Your task to perform on an android device: change keyboard looks Image 0: 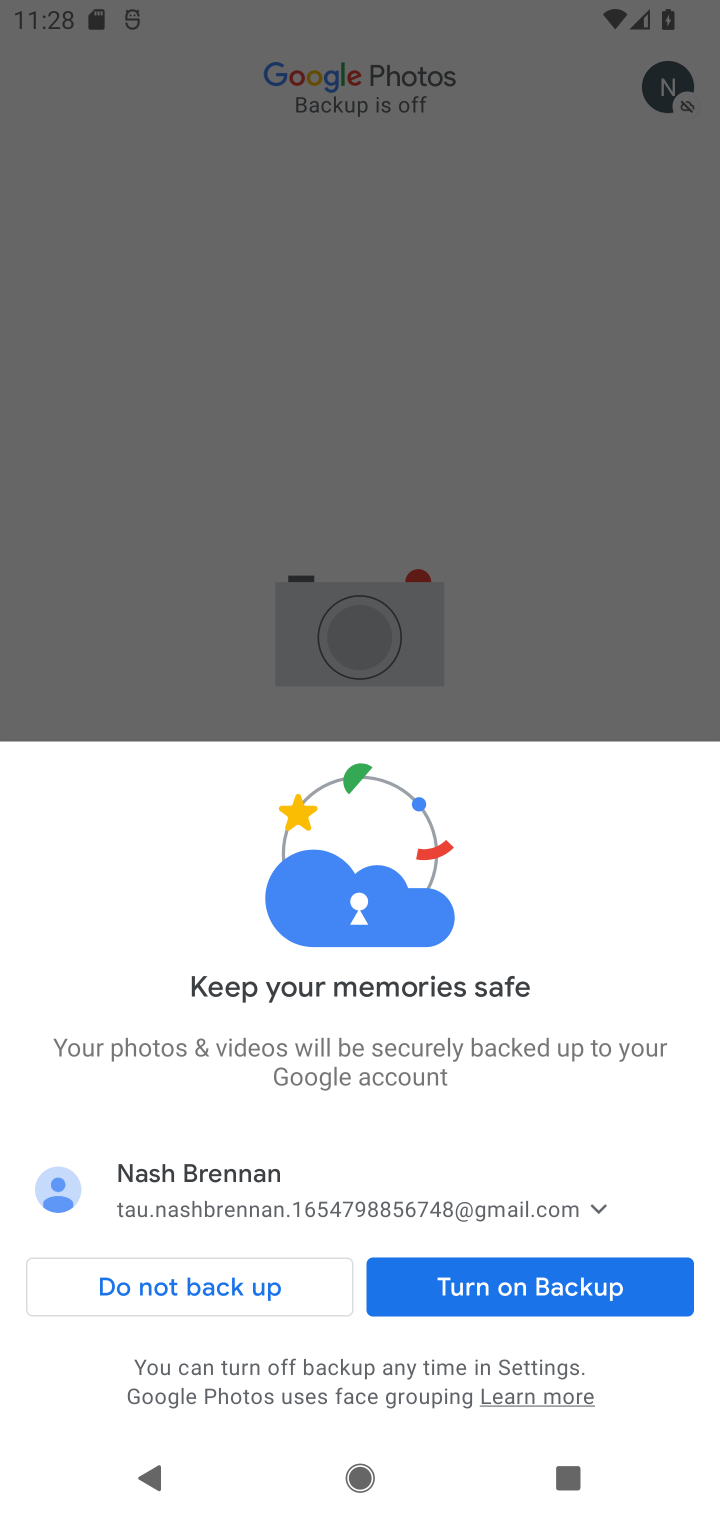
Step 0: press home button
Your task to perform on an android device: change keyboard looks Image 1: 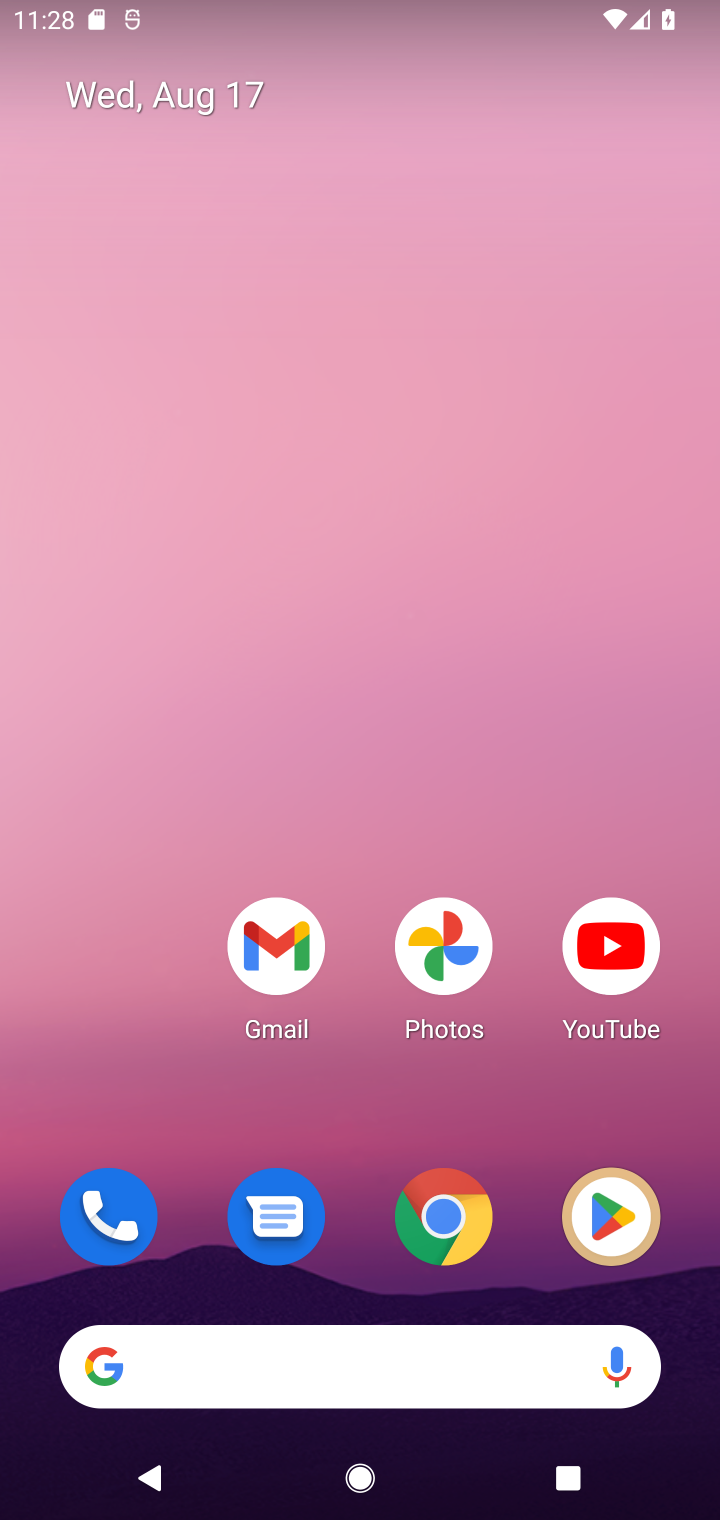
Step 1: drag from (380, 1309) to (245, 410)
Your task to perform on an android device: change keyboard looks Image 2: 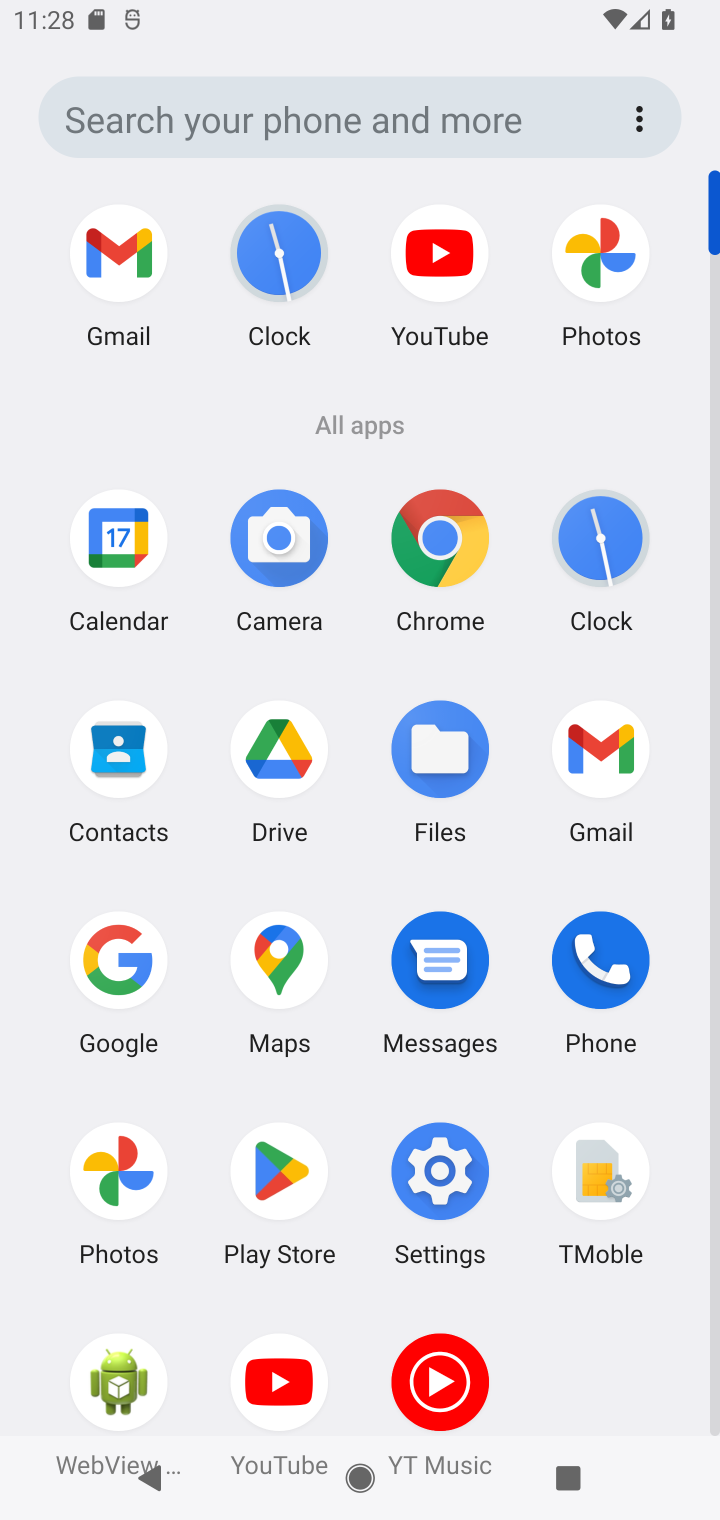
Step 2: click (437, 1192)
Your task to perform on an android device: change keyboard looks Image 3: 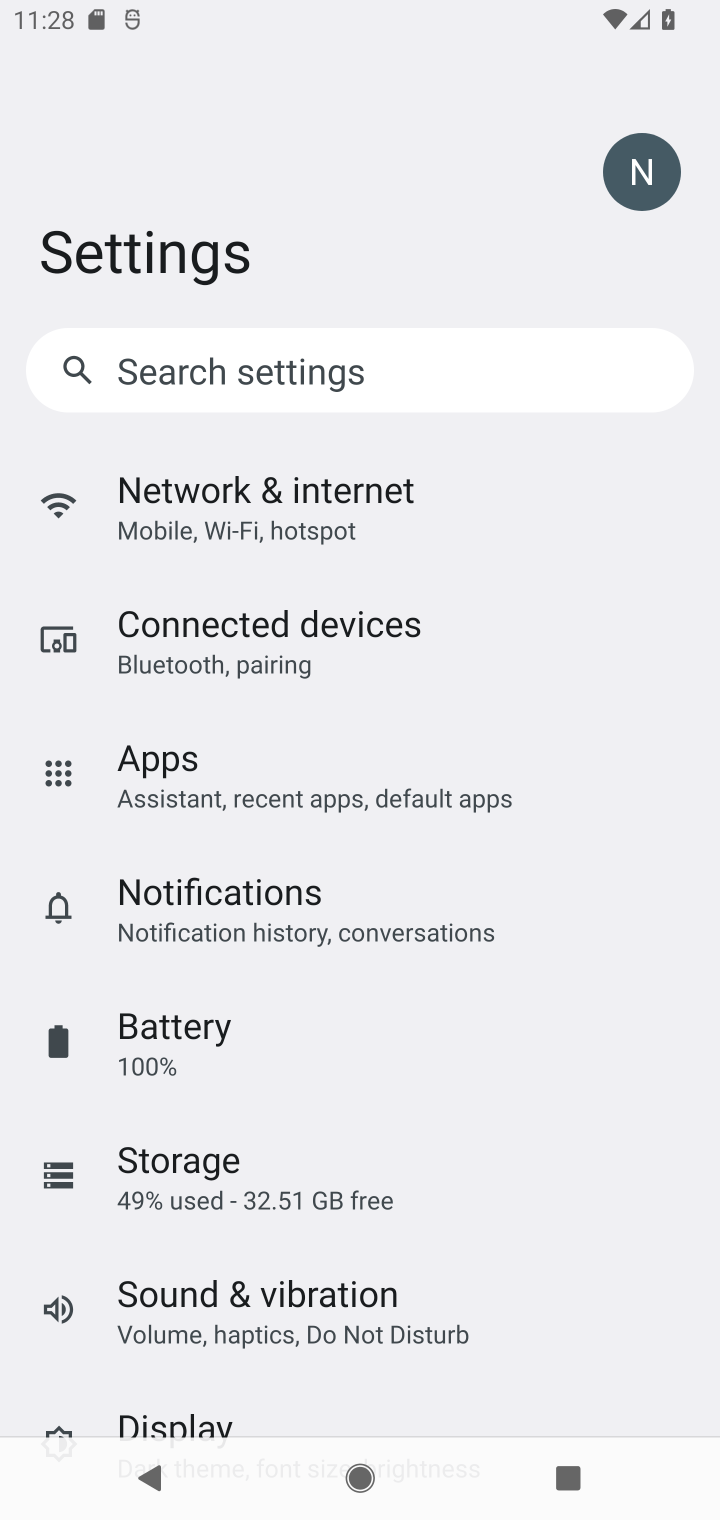
Step 3: drag from (290, 1184) to (376, 701)
Your task to perform on an android device: change keyboard looks Image 4: 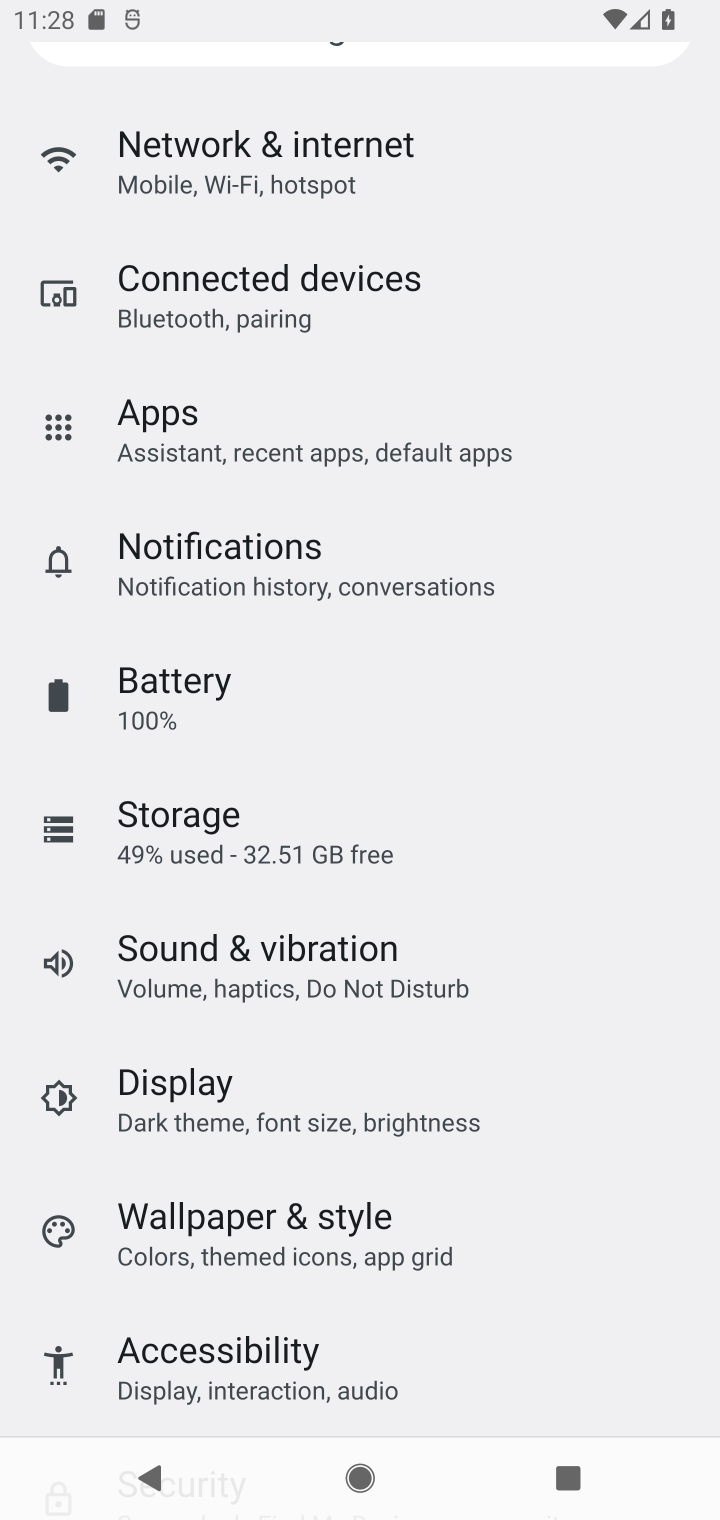
Step 4: click (267, 1126)
Your task to perform on an android device: change keyboard looks Image 5: 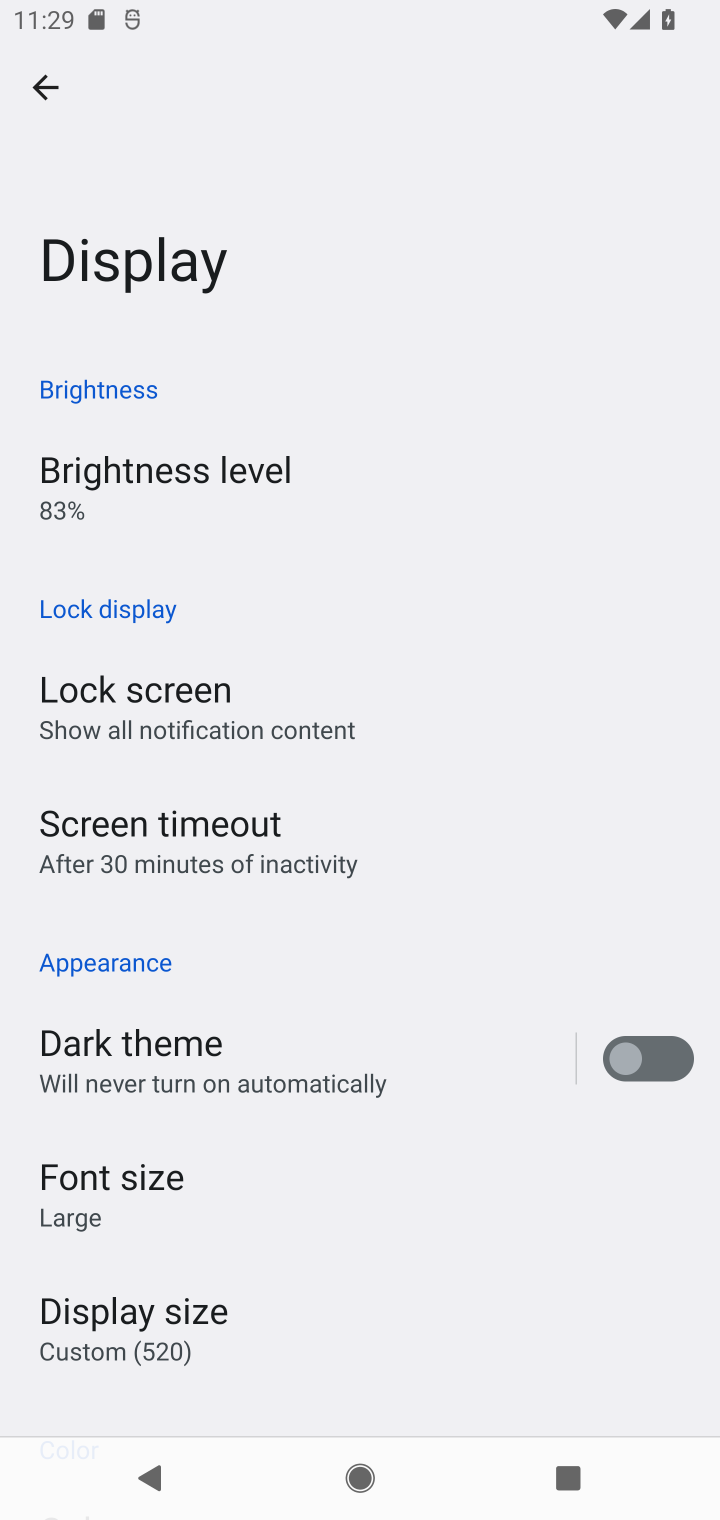
Step 5: click (35, 85)
Your task to perform on an android device: change keyboard looks Image 6: 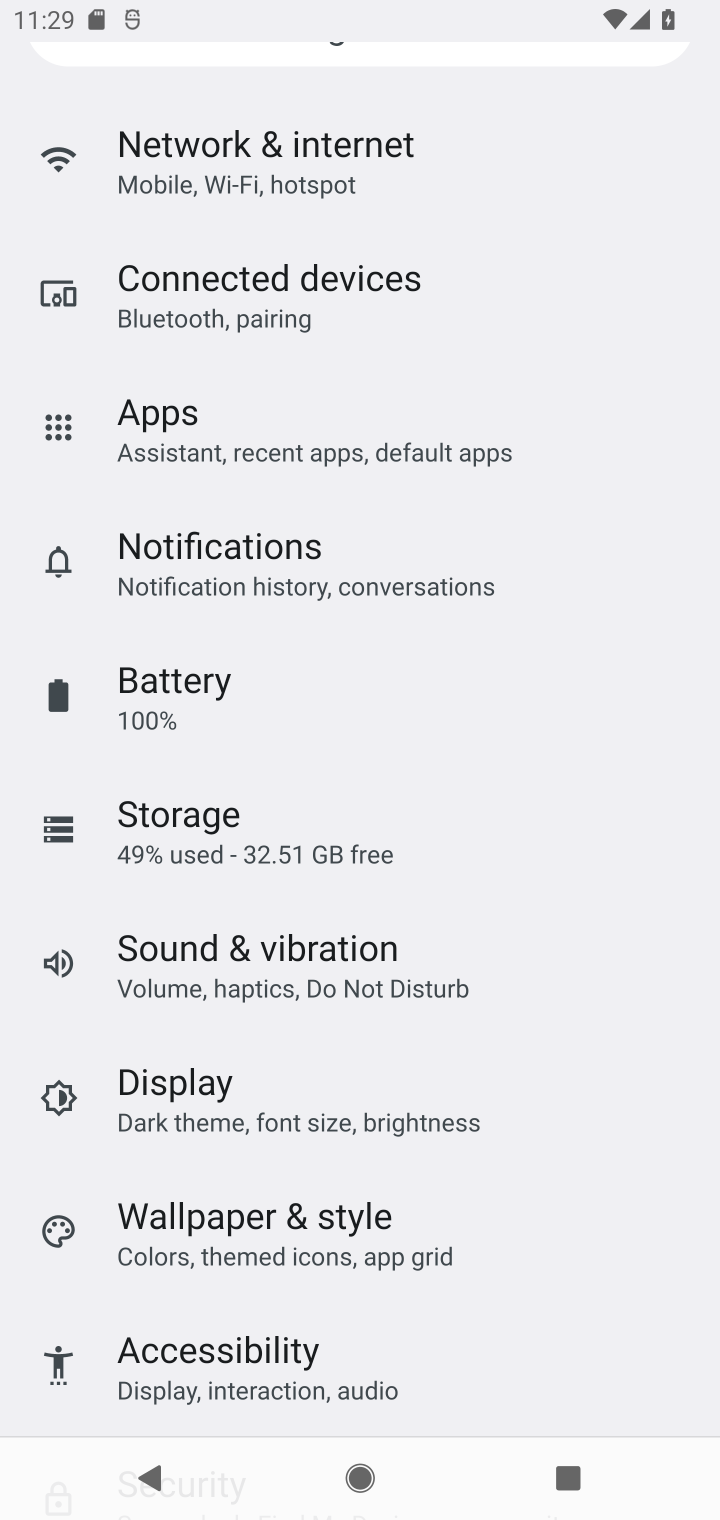
Step 6: drag from (288, 1195) to (397, 713)
Your task to perform on an android device: change keyboard looks Image 7: 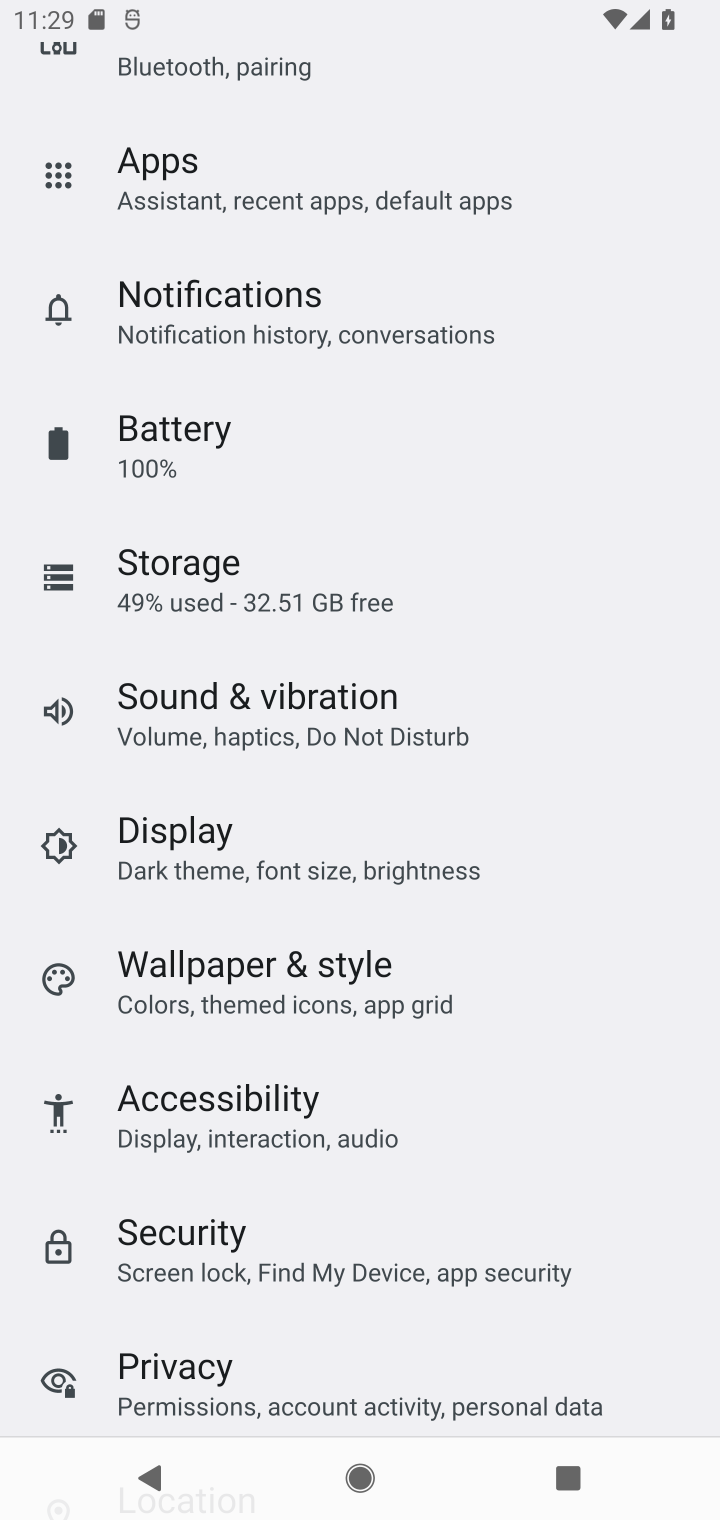
Step 7: drag from (382, 1202) to (293, 422)
Your task to perform on an android device: change keyboard looks Image 8: 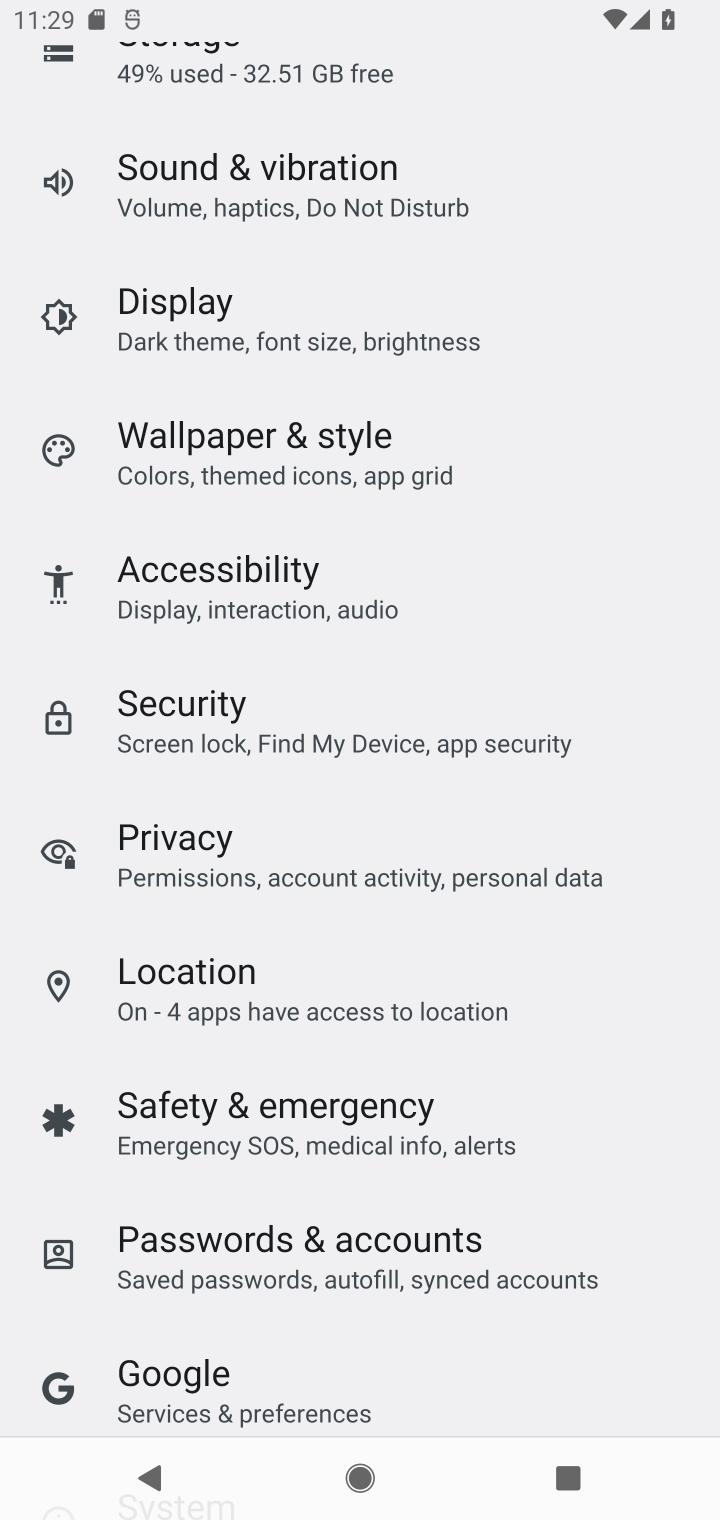
Step 8: drag from (327, 1155) to (346, 925)
Your task to perform on an android device: change keyboard looks Image 9: 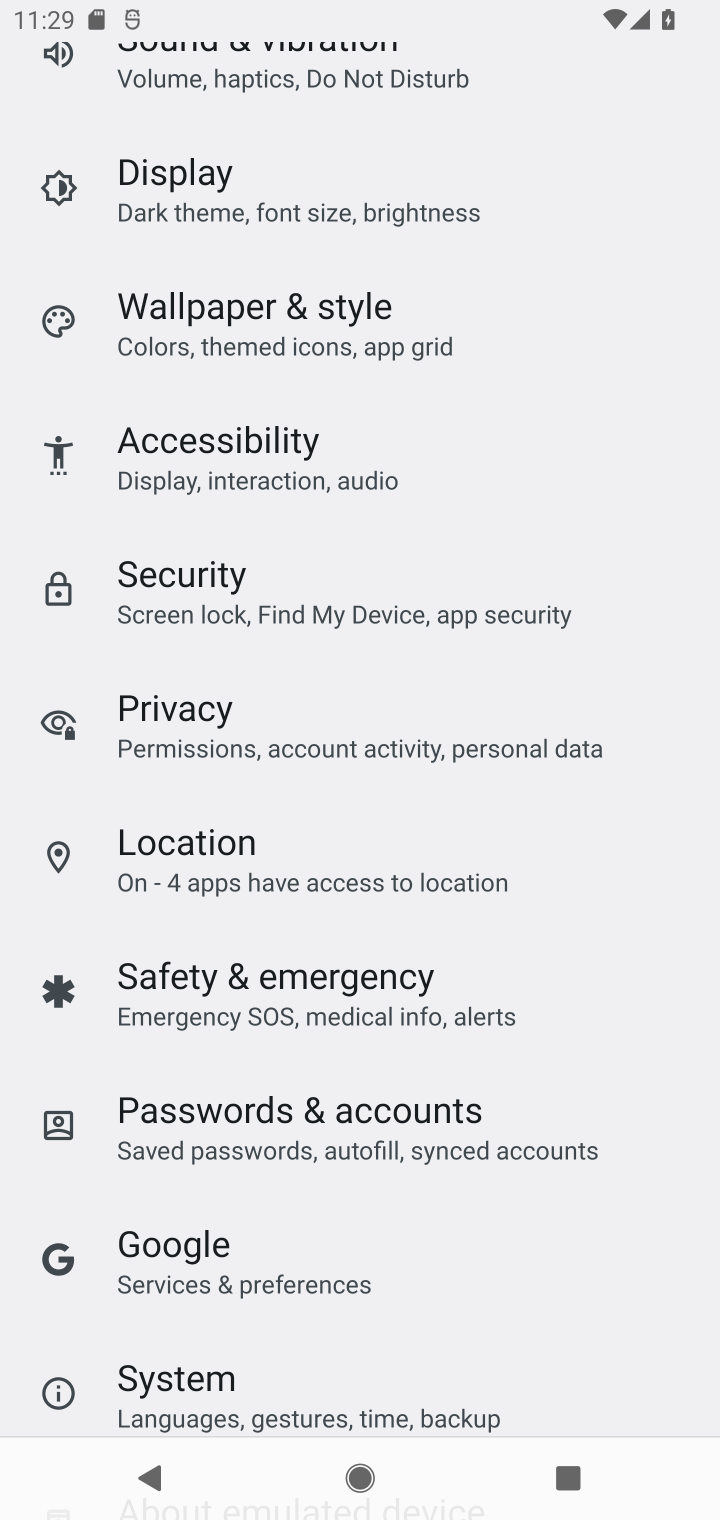
Step 9: click (334, 1402)
Your task to perform on an android device: change keyboard looks Image 10: 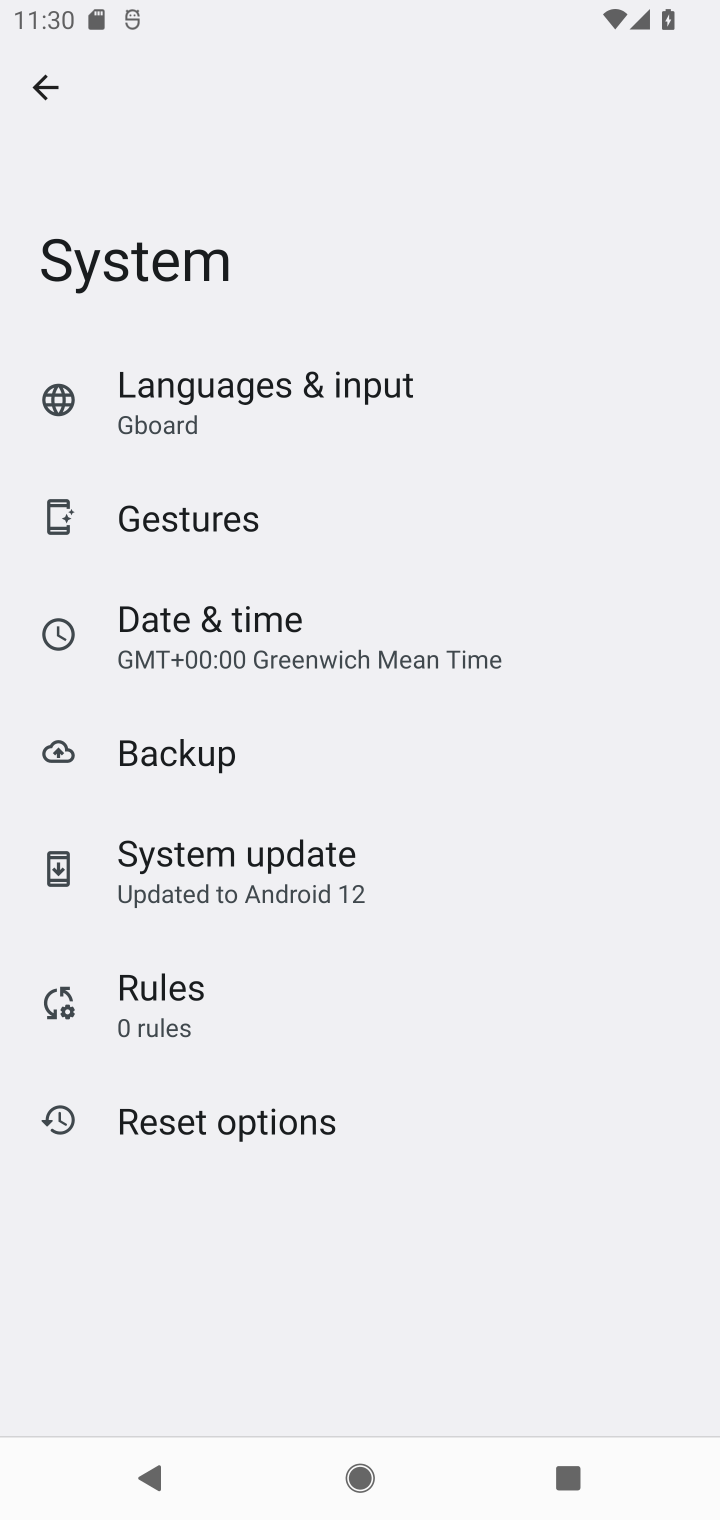
Step 10: click (315, 395)
Your task to perform on an android device: change keyboard looks Image 11: 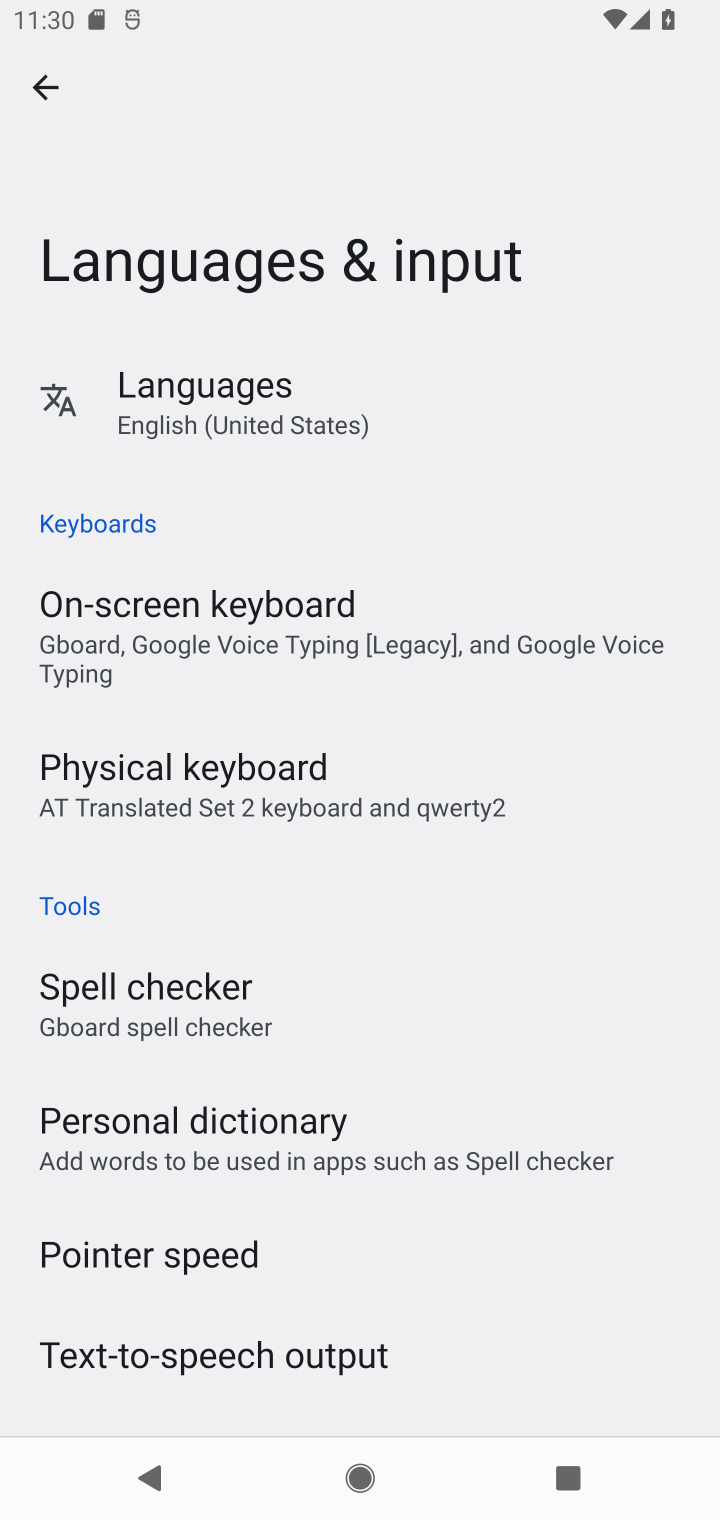
Step 11: click (269, 805)
Your task to perform on an android device: change keyboard looks Image 12: 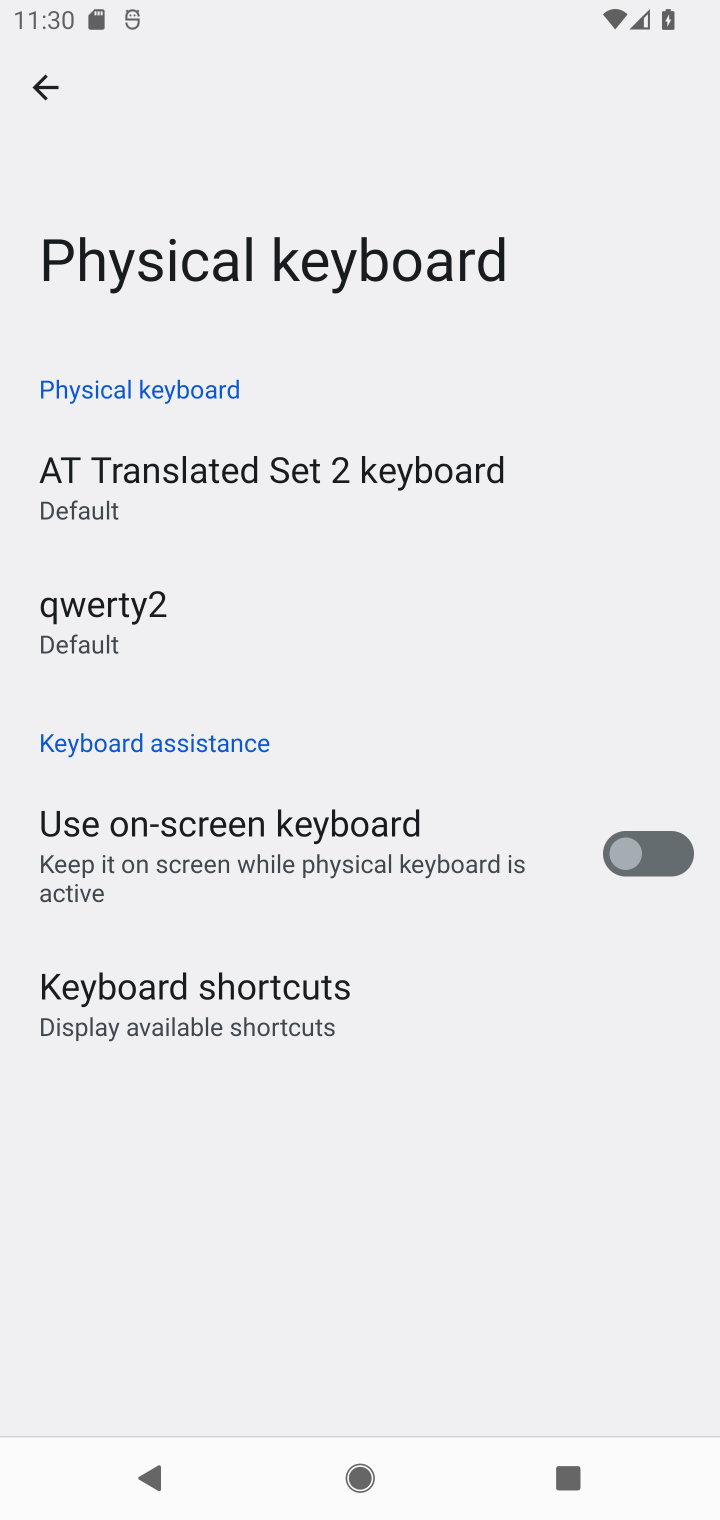
Step 12: task complete